Your task to perform on an android device: When is my next meeting? Image 0: 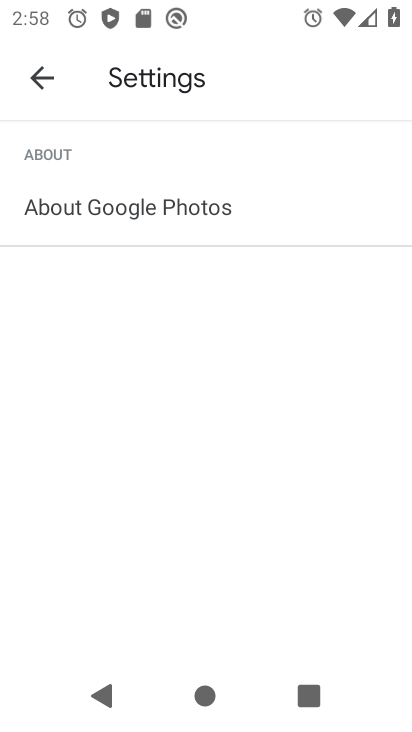
Step 0: press back button
Your task to perform on an android device: When is my next meeting? Image 1: 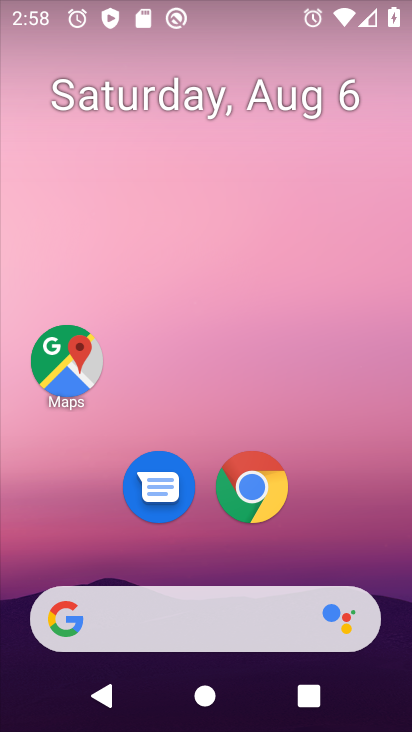
Step 1: drag from (163, 602) to (169, 122)
Your task to perform on an android device: When is my next meeting? Image 2: 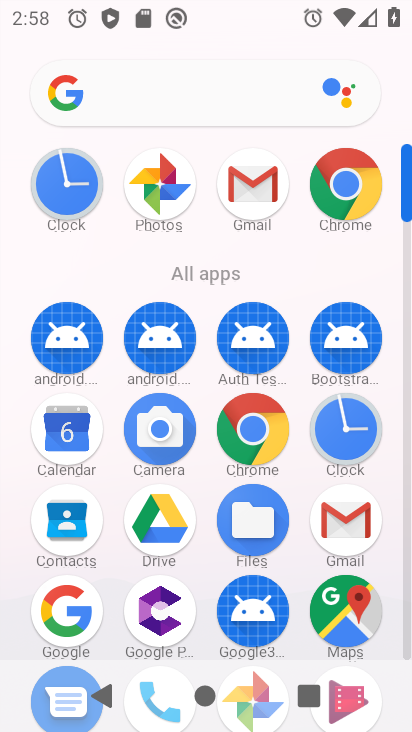
Step 2: click (37, 430)
Your task to perform on an android device: When is my next meeting? Image 3: 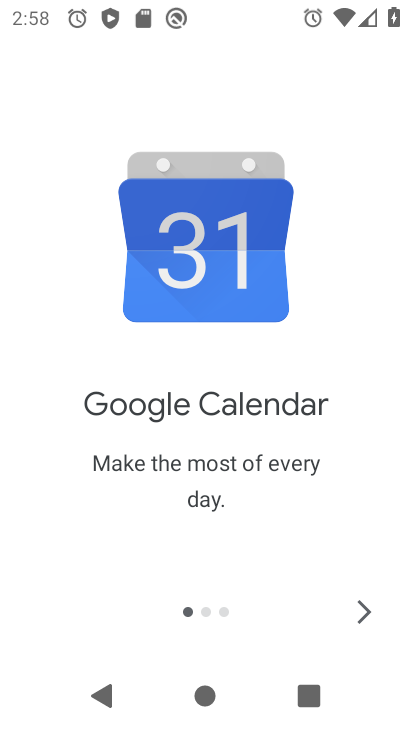
Step 3: click (364, 613)
Your task to perform on an android device: When is my next meeting? Image 4: 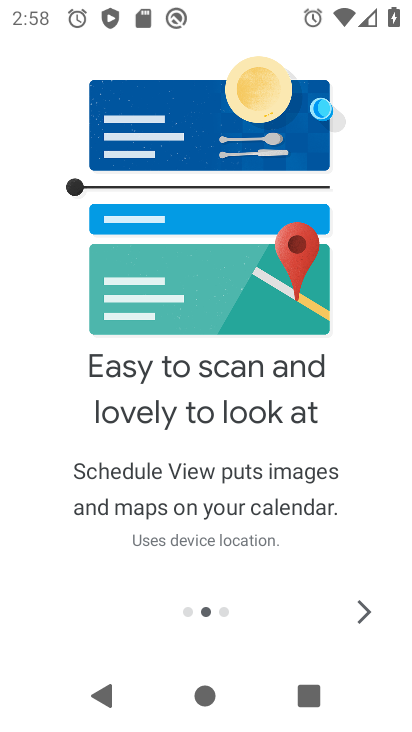
Step 4: click (367, 607)
Your task to perform on an android device: When is my next meeting? Image 5: 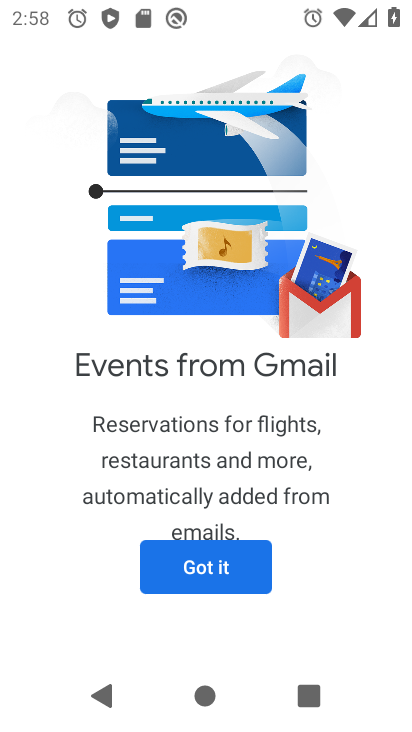
Step 5: click (197, 575)
Your task to perform on an android device: When is my next meeting? Image 6: 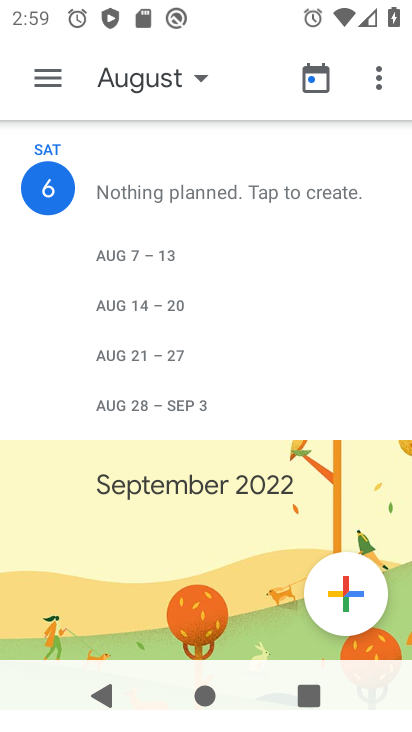
Step 6: click (55, 87)
Your task to perform on an android device: When is my next meeting? Image 7: 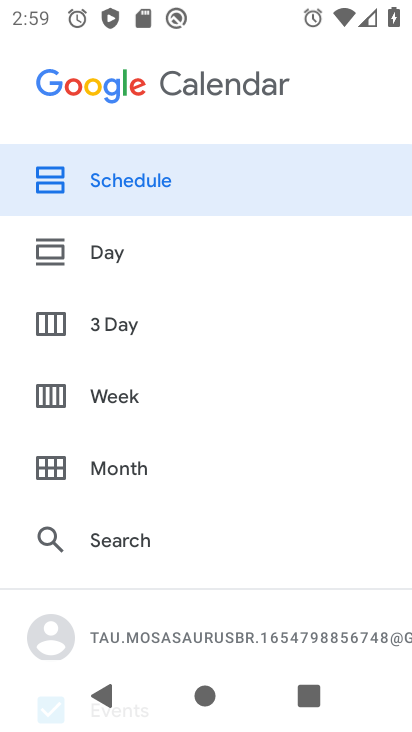
Step 7: click (142, 171)
Your task to perform on an android device: When is my next meeting? Image 8: 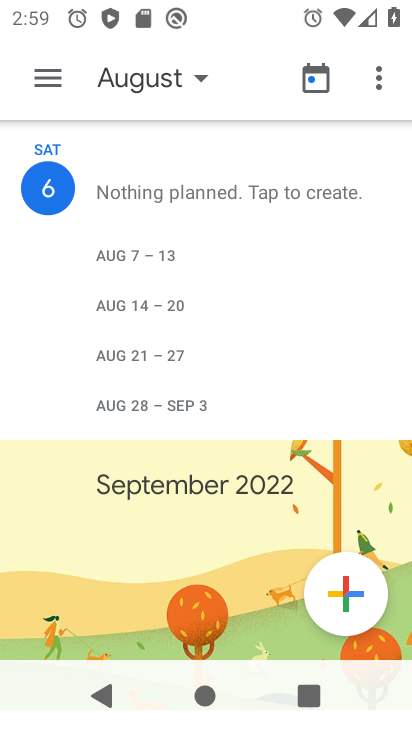
Step 8: task complete